Your task to perform on an android device: toggle location history Image 0: 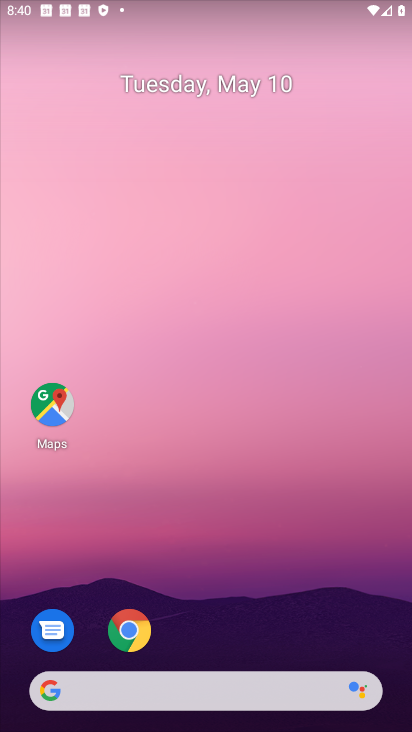
Step 0: drag from (190, 690) to (130, 80)
Your task to perform on an android device: toggle location history Image 1: 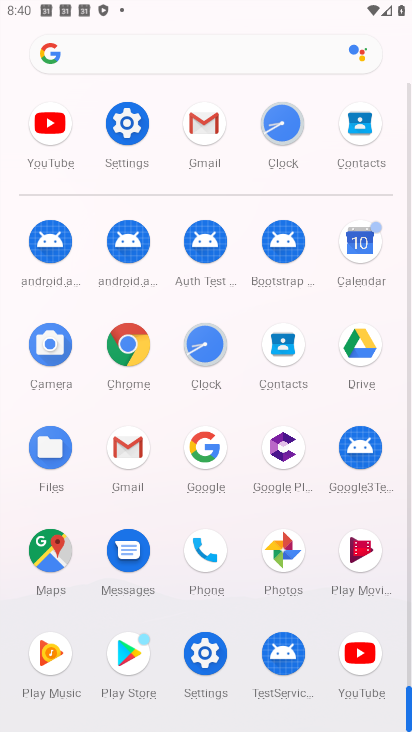
Step 1: click (126, 134)
Your task to perform on an android device: toggle location history Image 2: 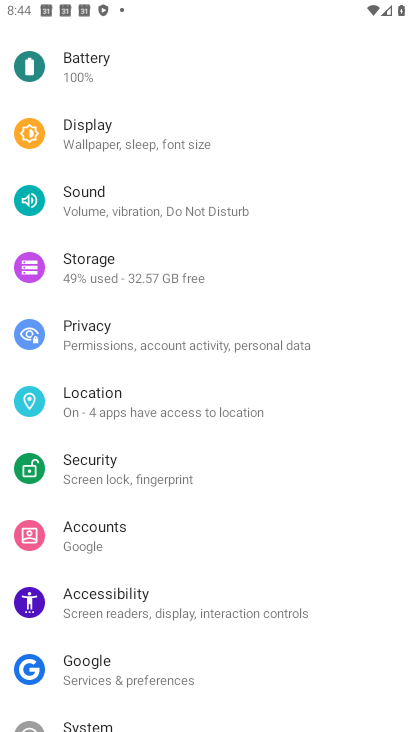
Step 2: click (223, 410)
Your task to perform on an android device: toggle location history Image 3: 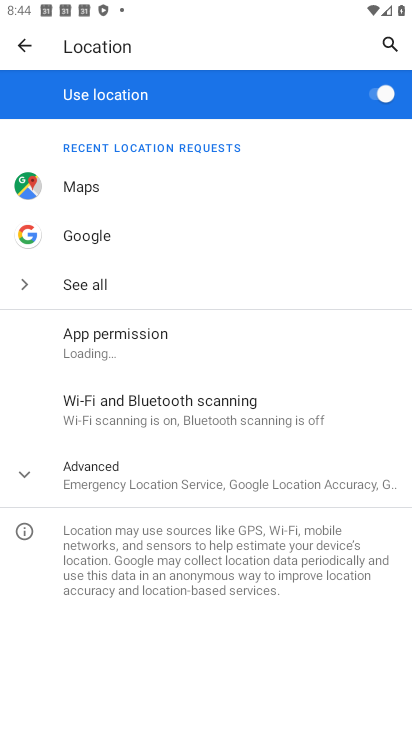
Step 3: click (272, 486)
Your task to perform on an android device: toggle location history Image 4: 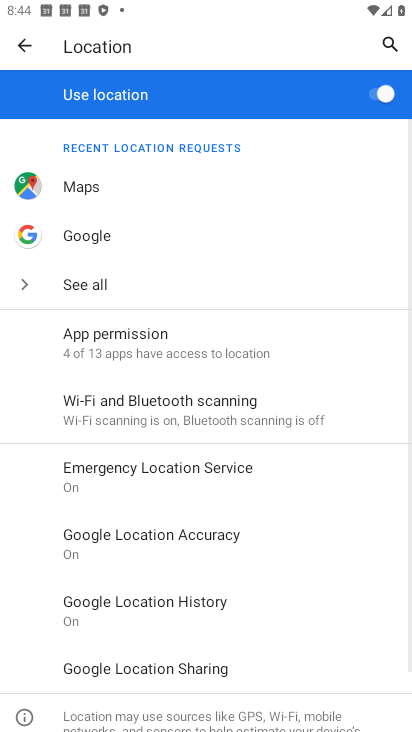
Step 4: click (216, 602)
Your task to perform on an android device: toggle location history Image 5: 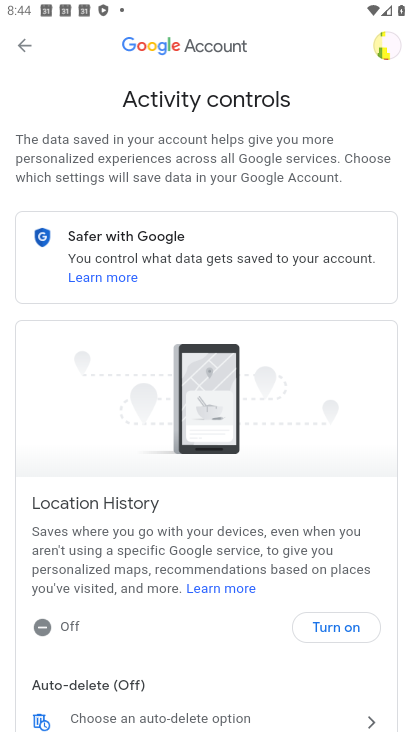
Step 5: click (311, 624)
Your task to perform on an android device: toggle location history Image 6: 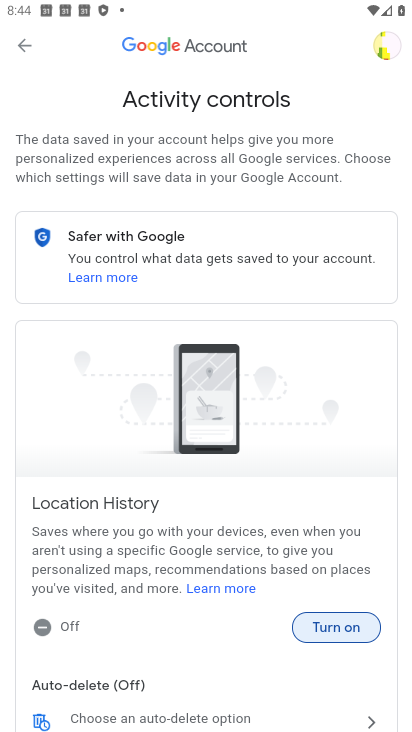
Step 6: click (352, 631)
Your task to perform on an android device: toggle location history Image 7: 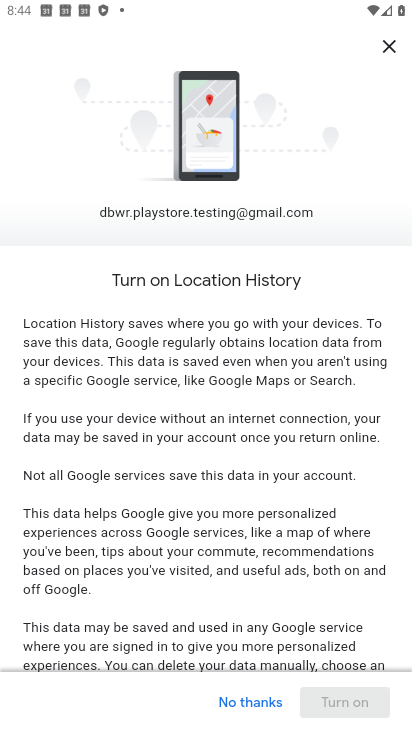
Step 7: drag from (279, 590) to (285, 60)
Your task to perform on an android device: toggle location history Image 8: 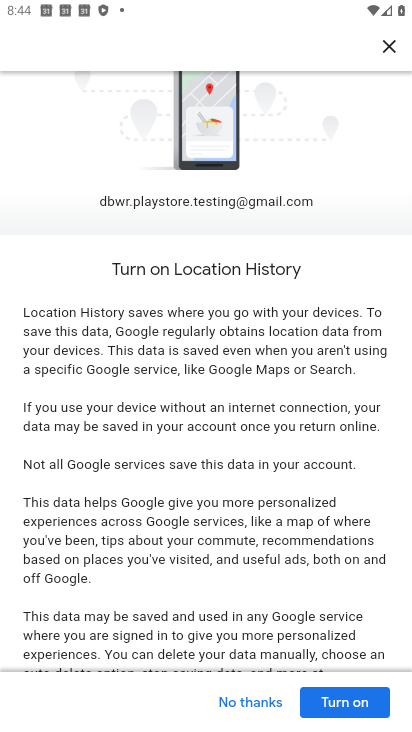
Step 8: click (336, 710)
Your task to perform on an android device: toggle location history Image 9: 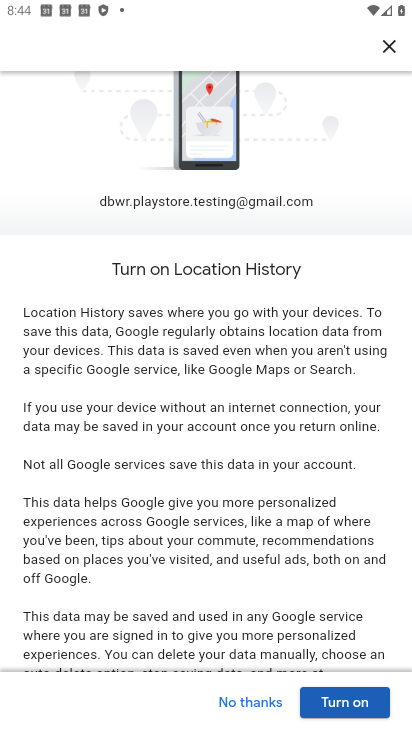
Step 9: click (336, 706)
Your task to perform on an android device: toggle location history Image 10: 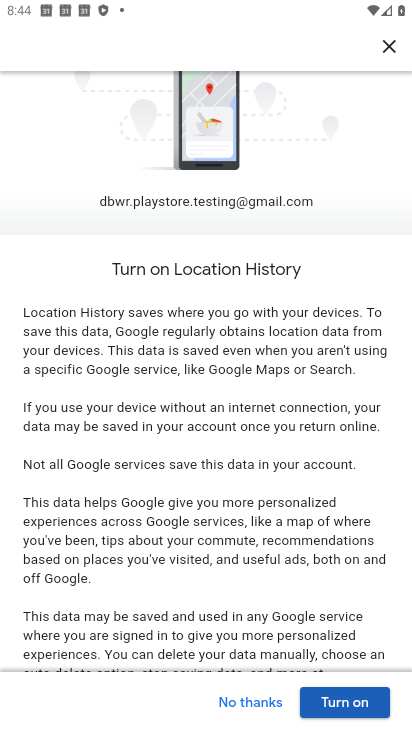
Step 10: task complete